Your task to perform on an android device: check the backup settings in the google photos Image 0: 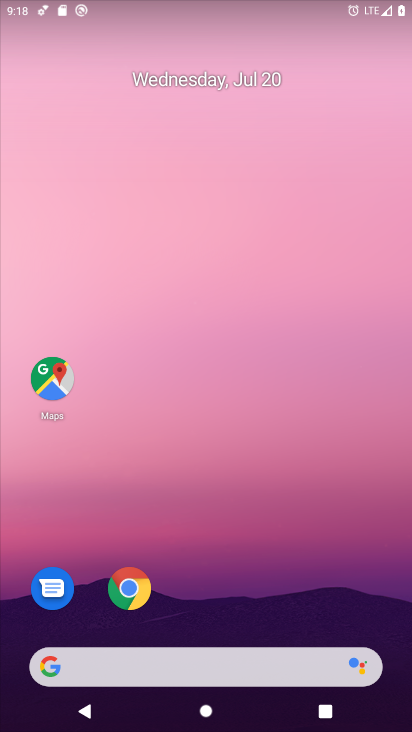
Step 0: drag from (224, 613) to (235, 107)
Your task to perform on an android device: check the backup settings in the google photos Image 1: 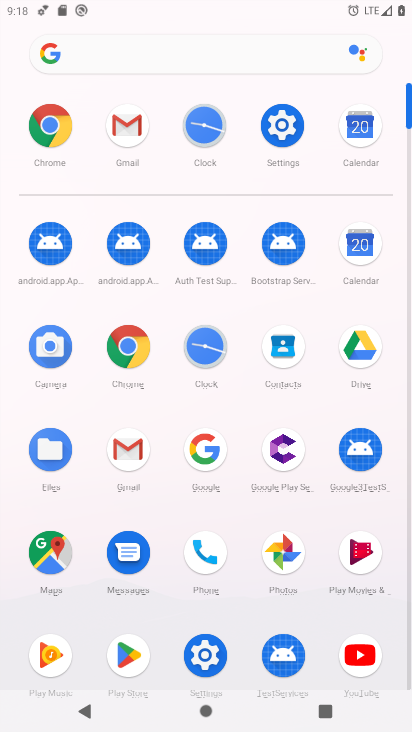
Step 1: click (275, 539)
Your task to perform on an android device: check the backup settings in the google photos Image 2: 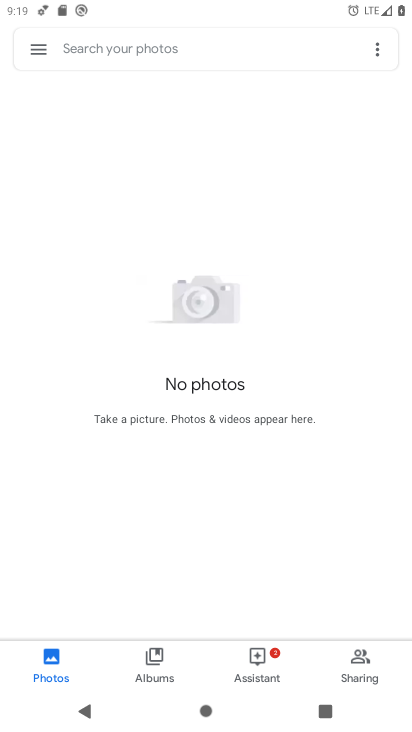
Step 2: click (36, 44)
Your task to perform on an android device: check the backup settings in the google photos Image 3: 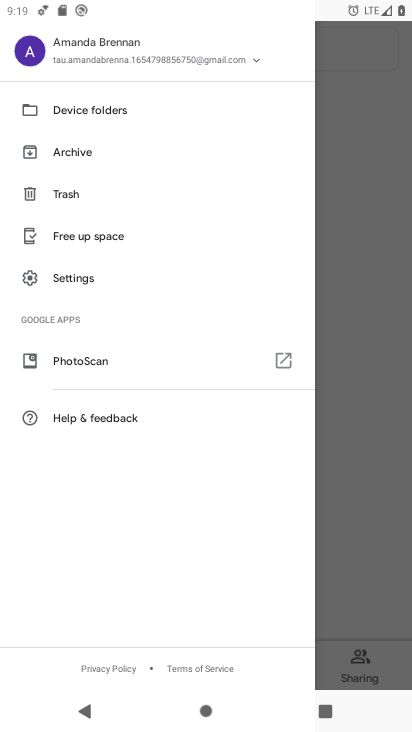
Step 3: click (48, 275)
Your task to perform on an android device: check the backup settings in the google photos Image 4: 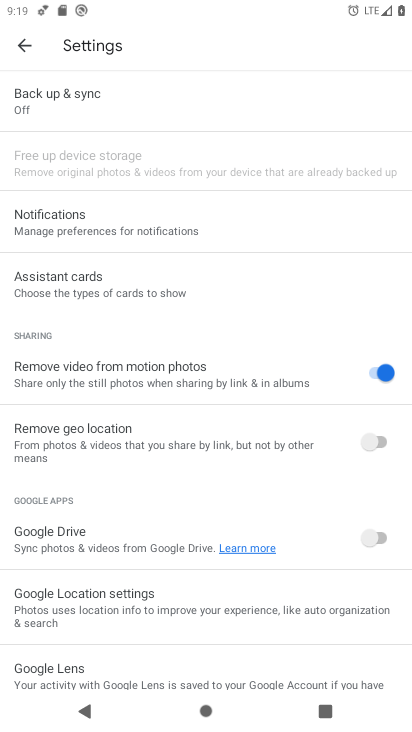
Step 4: click (75, 107)
Your task to perform on an android device: check the backup settings in the google photos Image 5: 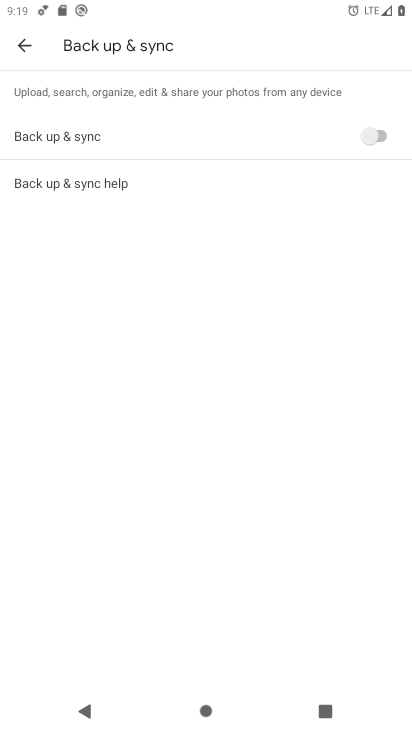
Step 5: click (375, 128)
Your task to perform on an android device: check the backup settings in the google photos Image 6: 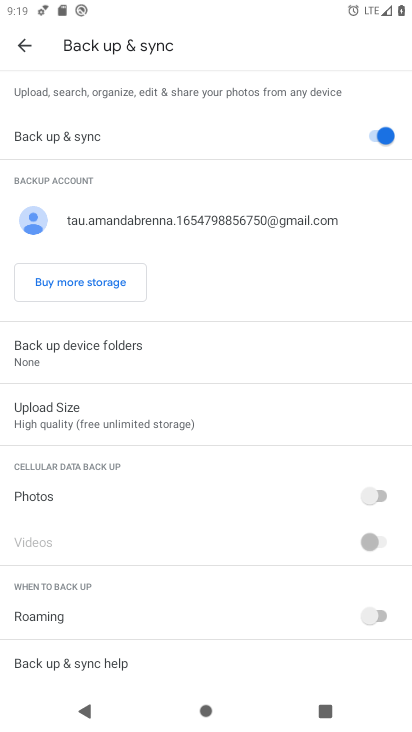
Step 6: task complete